Your task to perform on an android device: Open Google Chrome and open the bookmarks view Image 0: 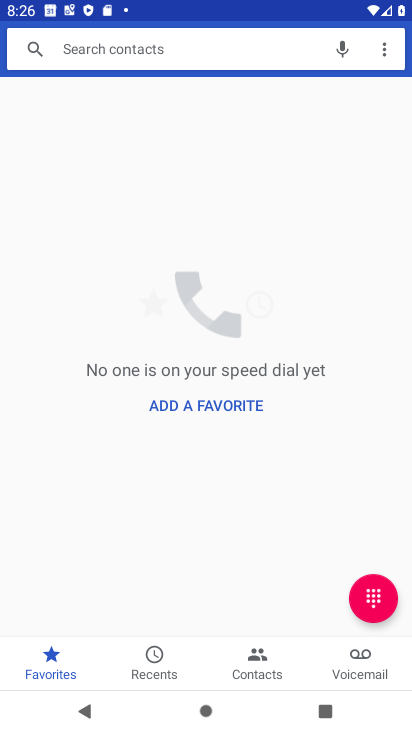
Step 0: press home button
Your task to perform on an android device: Open Google Chrome and open the bookmarks view Image 1: 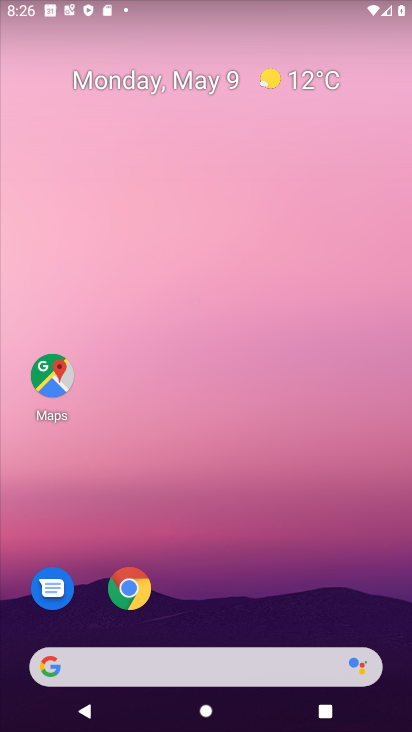
Step 1: drag from (157, 671) to (238, 112)
Your task to perform on an android device: Open Google Chrome and open the bookmarks view Image 2: 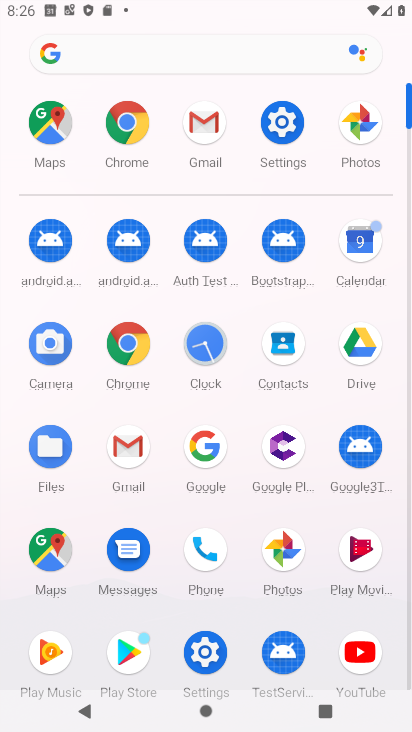
Step 2: click (129, 122)
Your task to perform on an android device: Open Google Chrome and open the bookmarks view Image 3: 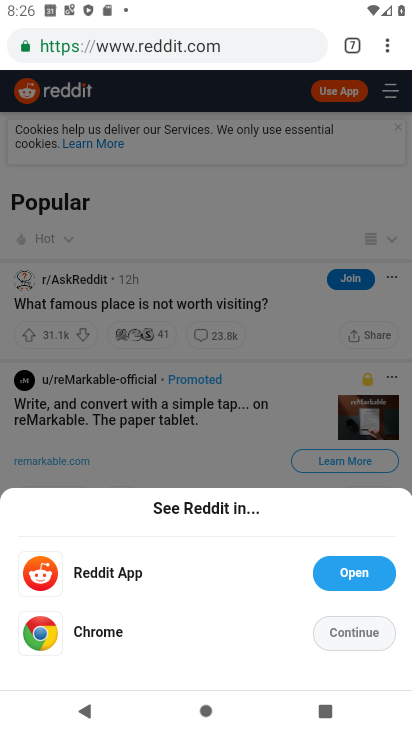
Step 3: task complete